Your task to perform on an android device: Go to Yahoo.com Image 0: 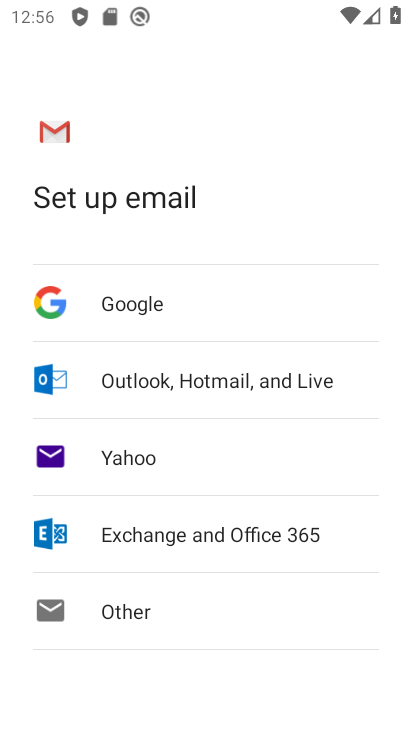
Step 0: press home button
Your task to perform on an android device: Go to Yahoo.com Image 1: 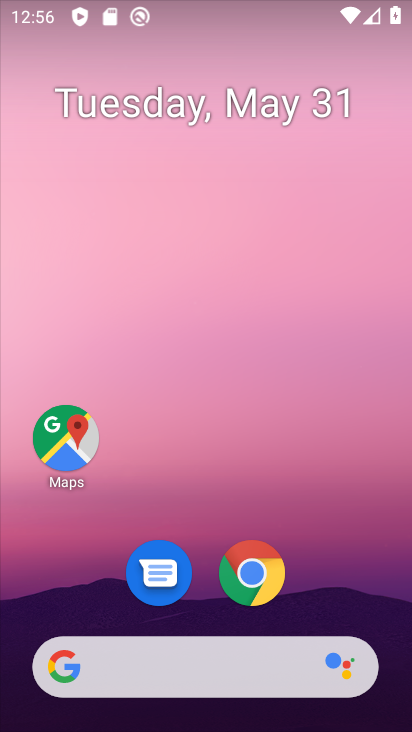
Step 1: drag from (352, 563) to (340, 244)
Your task to perform on an android device: Go to Yahoo.com Image 2: 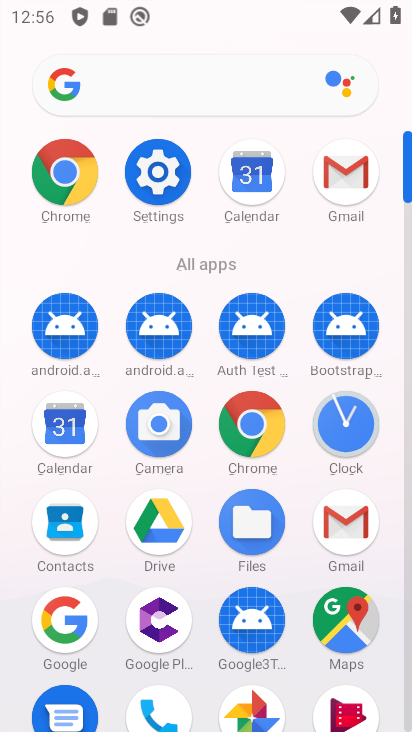
Step 2: click (254, 437)
Your task to perform on an android device: Go to Yahoo.com Image 3: 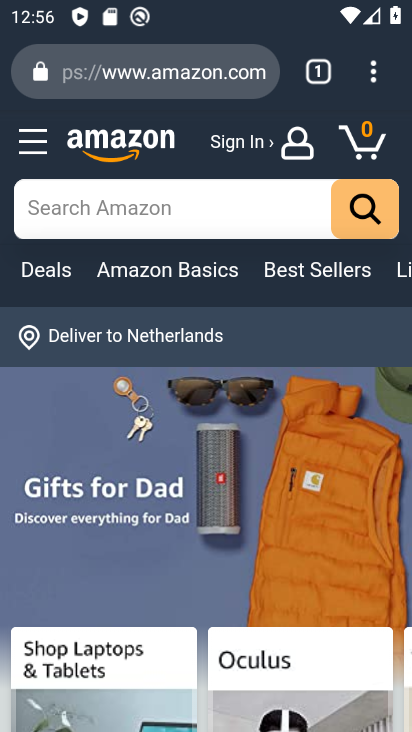
Step 3: press back button
Your task to perform on an android device: Go to Yahoo.com Image 4: 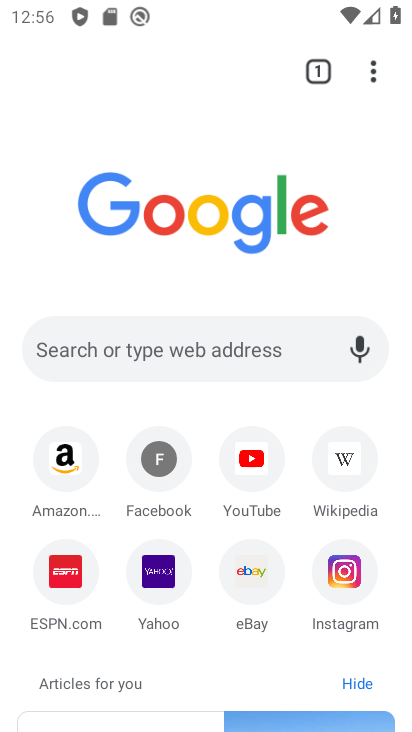
Step 4: click (157, 574)
Your task to perform on an android device: Go to Yahoo.com Image 5: 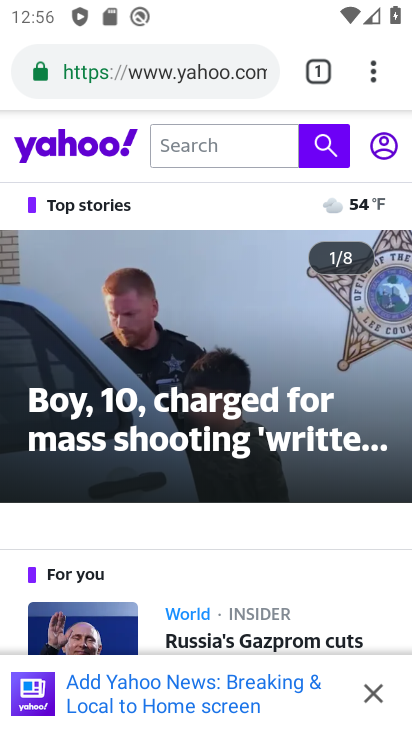
Step 5: task complete